Your task to perform on an android device: Open Reddit.com Image 0: 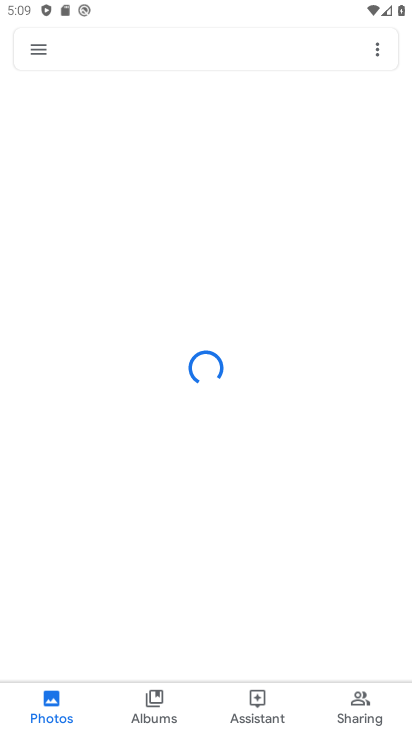
Step 0: press home button
Your task to perform on an android device: Open Reddit.com Image 1: 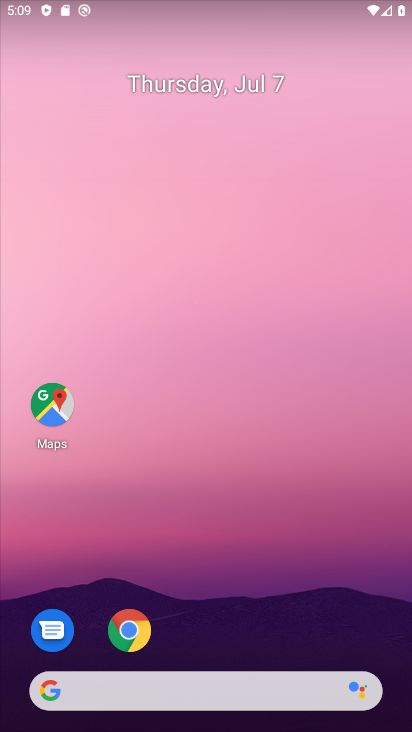
Step 1: drag from (176, 539) to (178, 1)
Your task to perform on an android device: Open Reddit.com Image 2: 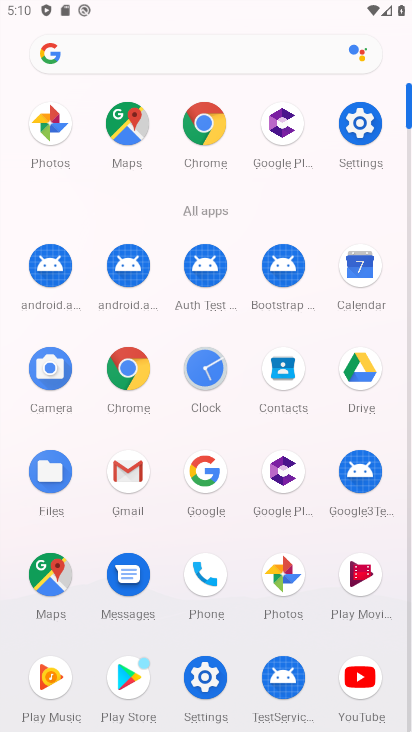
Step 2: click (212, 130)
Your task to perform on an android device: Open Reddit.com Image 3: 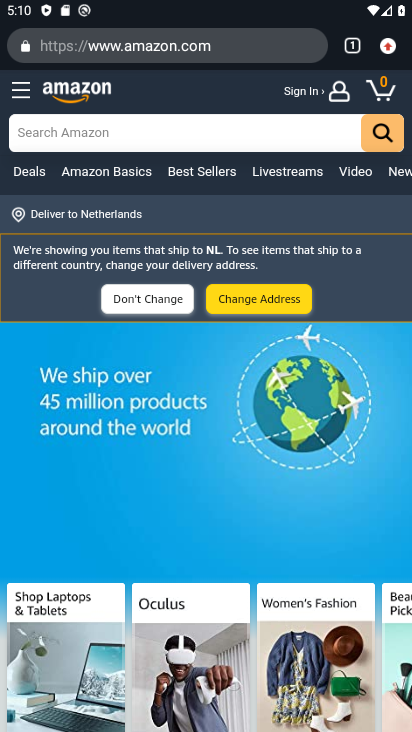
Step 3: press back button
Your task to perform on an android device: Open Reddit.com Image 4: 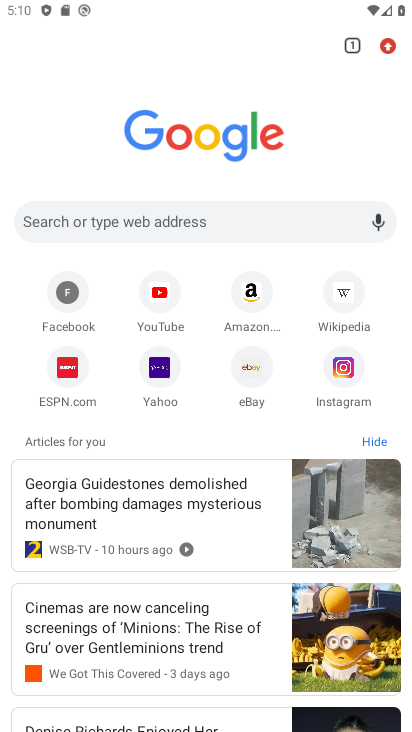
Step 4: click (206, 208)
Your task to perform on an android device: Open Reddit.com Image 5: 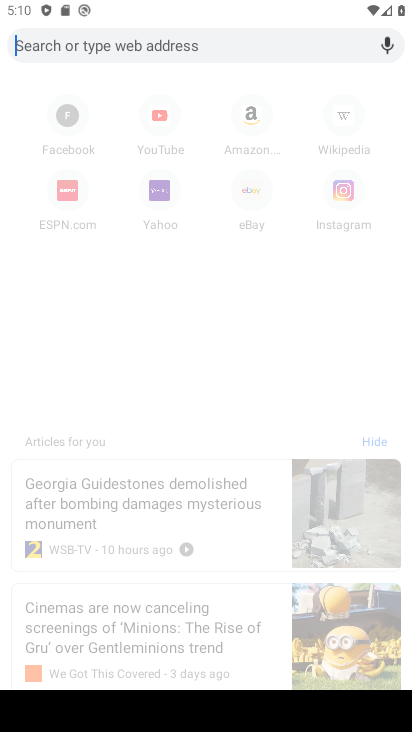
Step 5: type "www.reddit.com"
Your task to perform on an android device: Open Reddit.com Image 6: 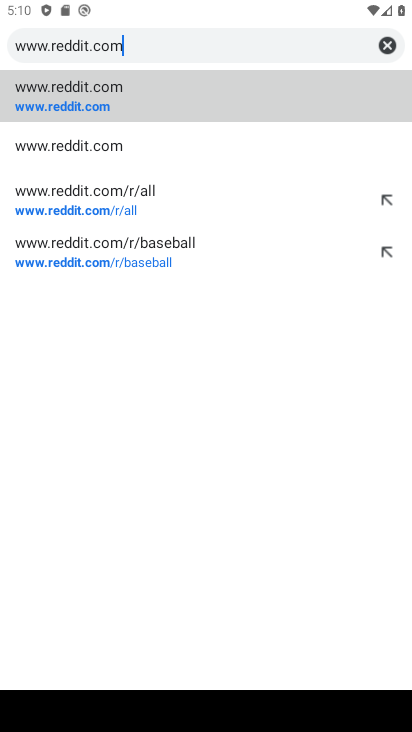
Step 6: click (76, 107)
Your task to perform on an android device: Open Reddit.com Image 7: 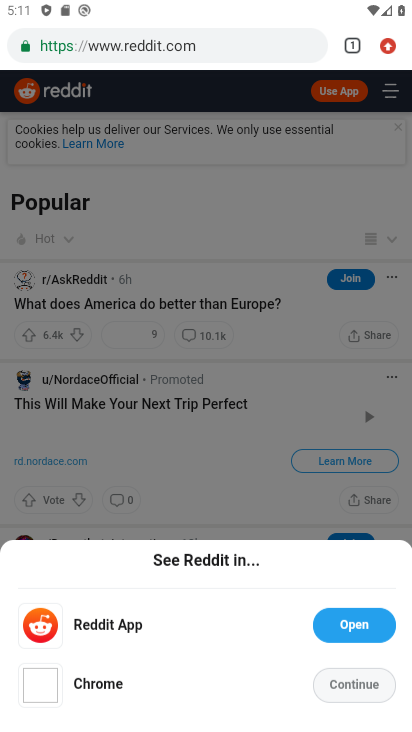
Step 7: task complete